Your task to perform on an android device: Open the web browser Image 0: 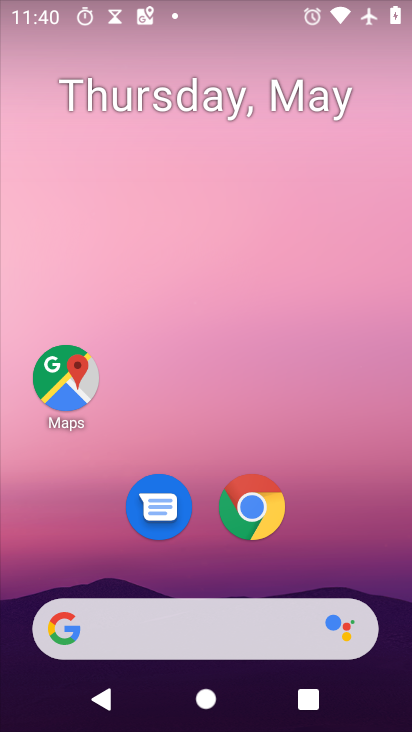
Step 0: drag from (330, 479) to (271, 1)
Your task to perform on an android device: Open the web browser Image 1: 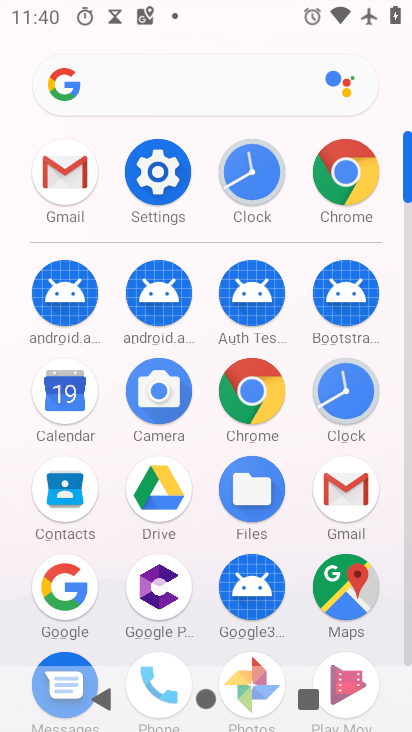
Step 1: drag from (24, 461) to (2, 228)
Your task to perform on an android device: Open the web browser Image 2: 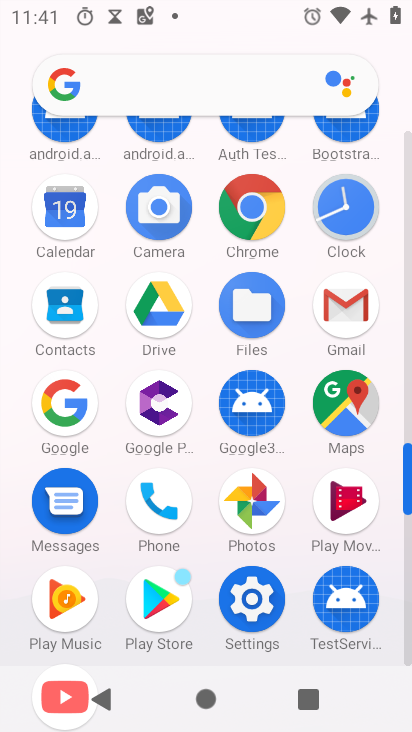
Step 2: click (248, 202)
Your task to perform on an android device: Open the web browser Image 3: 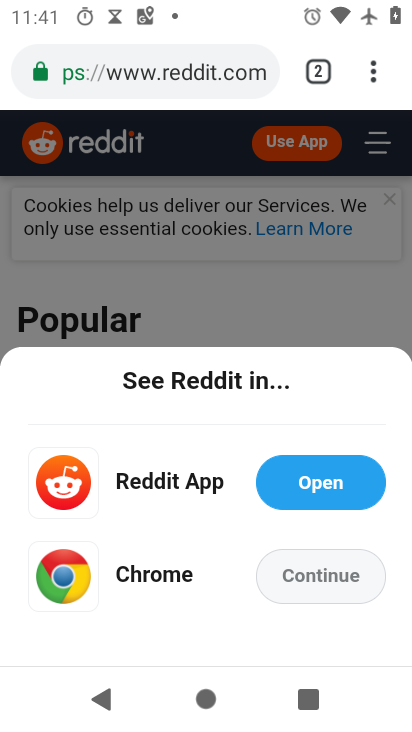
Step 3: task complete